Your task to perform on an android device: change notifications settings Image 0: 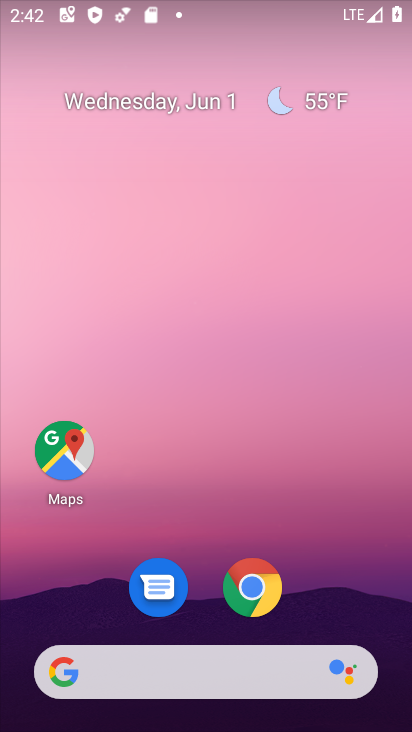
Step 0: drag from (217, 668) to (252, 233)
Your task to perform on an android device: change notifications settings Image 1: 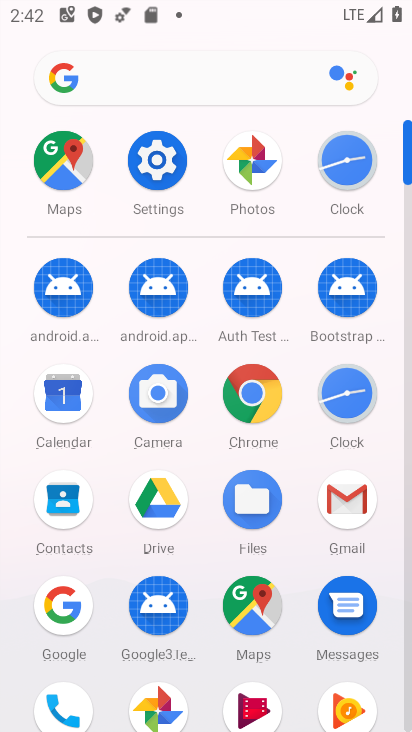
Step 1: click (145, 153)
Your task to perform on an android device: change notifications settings Image 2: 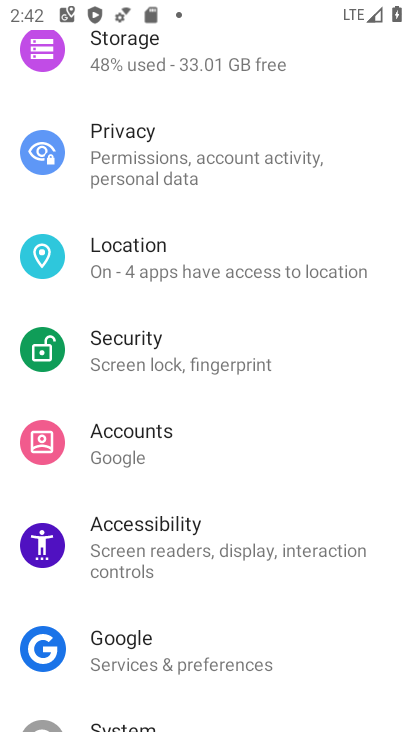
Step 2: drag from (116, 215) to (199, 548)
Your task to perform on an android device: change notifications settings Image 3: 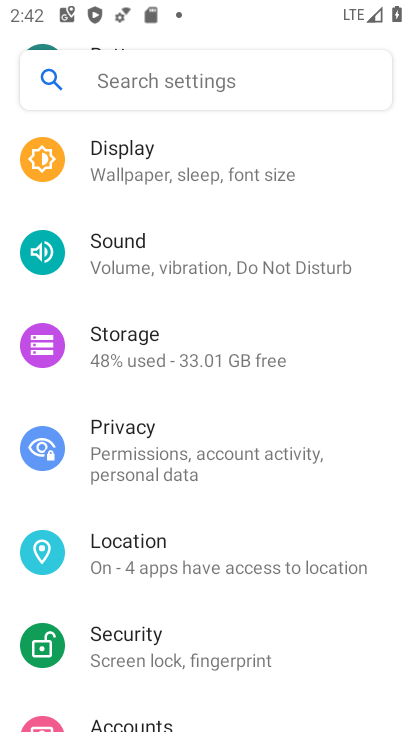
Step 3: click (146, 273)
Your task to perform on an android device: change notifications settings Image 4: 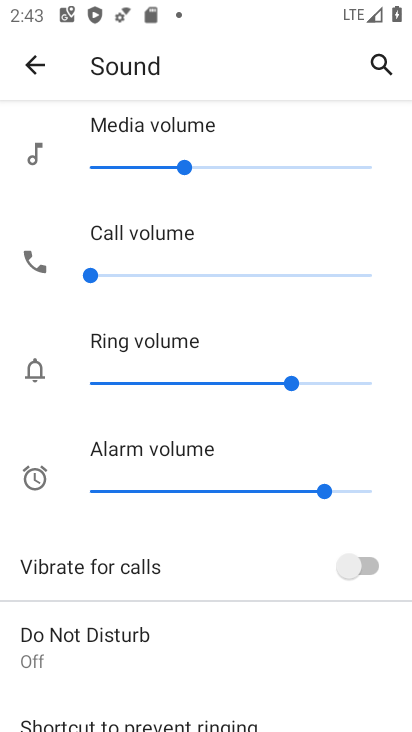
Step 4: press home button
Your task to perform on an android device: change notifications settings Image 5: 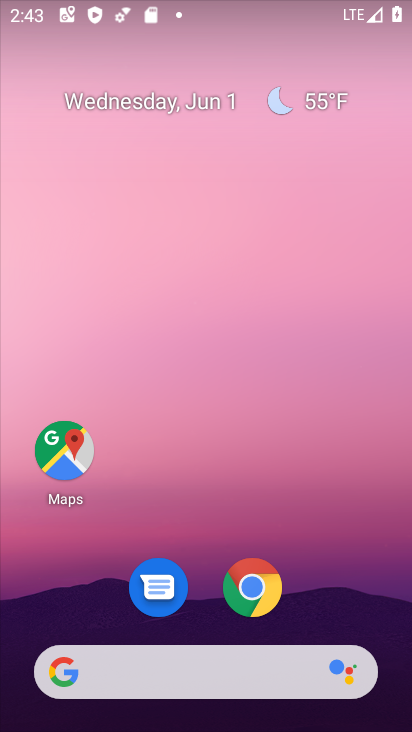
Step 5: drag from (175, 669) to (190, 182)
Your task to perform on an android device: change notifications settings Image 6: 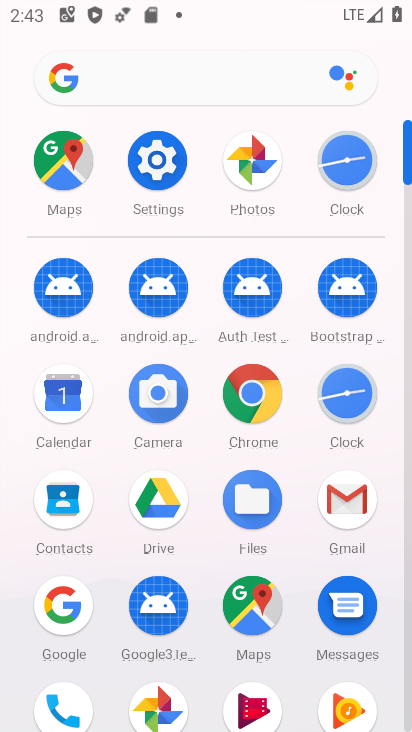
Step 6: click (159, 167)
Your task to perform on an android device: change notifications settings Image 7: 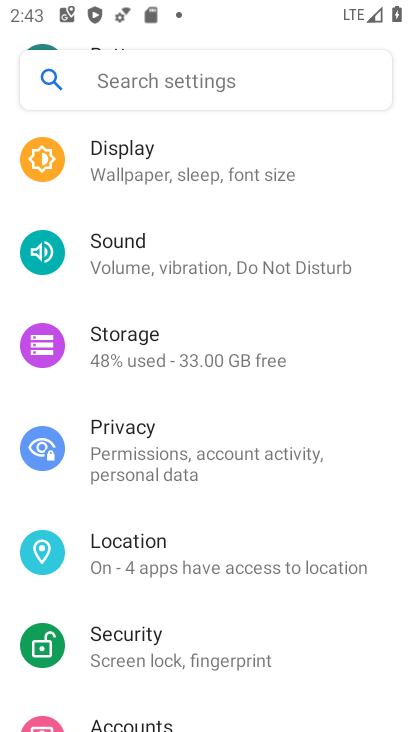
Step 7: click (164, 283)
Your task to perform on an android device: change notifications settings Image 8: 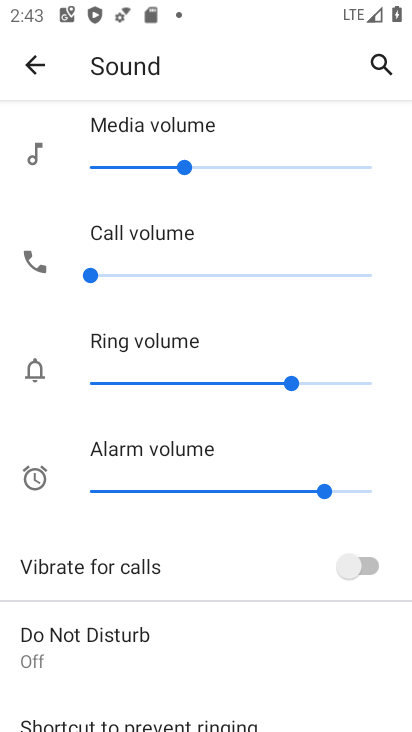
Step 8: drag from (219, 611) to (175, 141)
Your task to perform on an android device: change notifications settings Image 9: 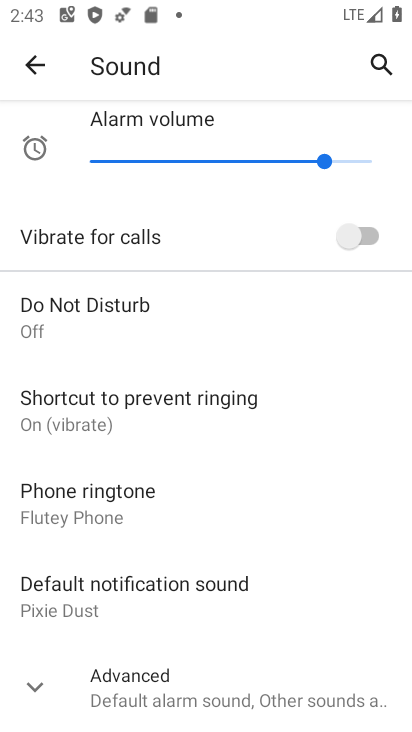
Step 9: click (348, 236)
Your task to perform on an android device: change notifications settings Image 10: 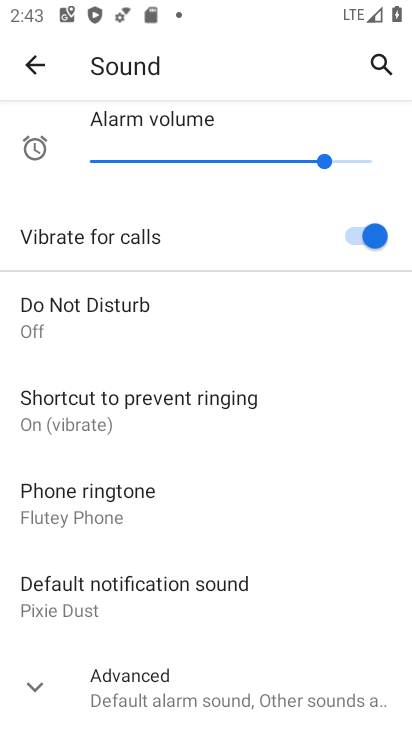
Step 10: task complete